Your task to perform on an android device: Go to Android settings Image 0: 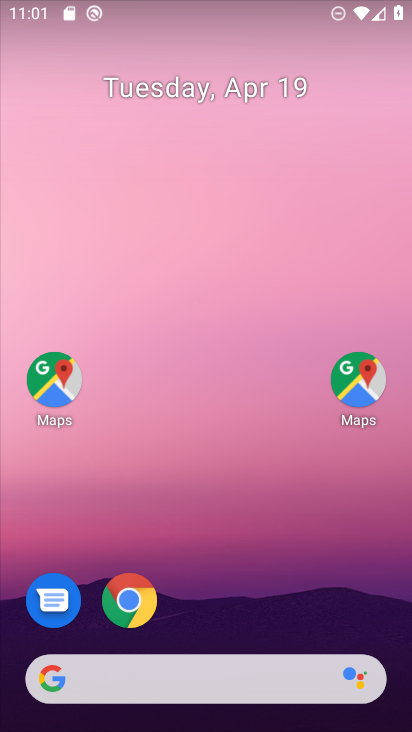
Step 0: drag from (294, 628) to (240, 0)
Your task to perform on an android device: Go to Android settings Image 1: 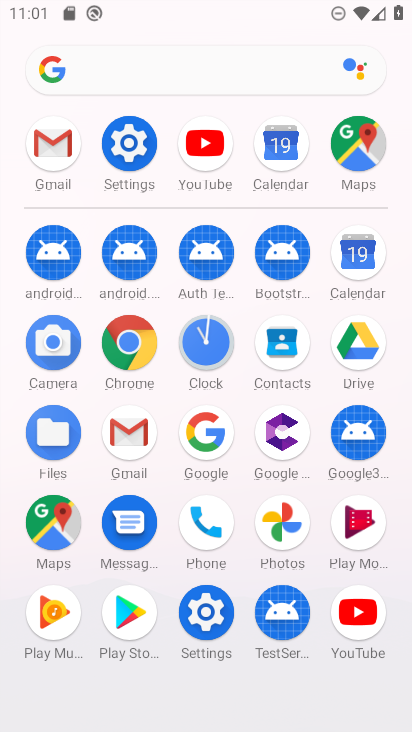
Step 1: click (211, 628)
Your task to perform on an android device: Go to Android settings Image 2: 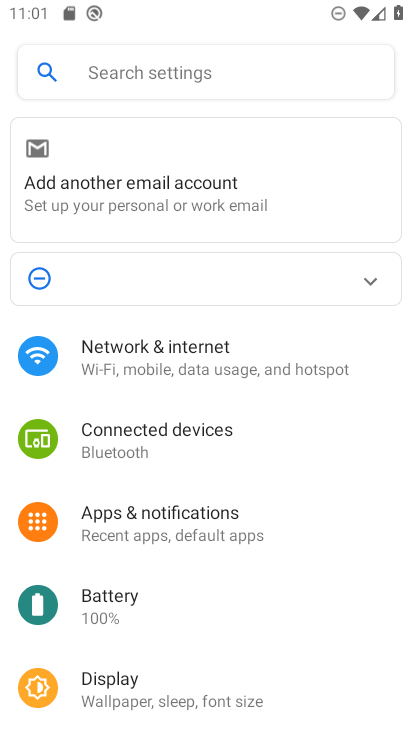
Step 2: drag from (276, 695) to (349, 88)
Your task to perform on an android device: Go to Android settings Image 3: 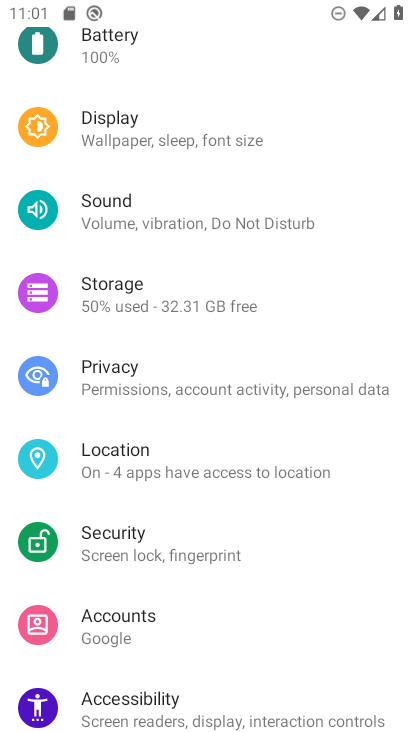
Step 3: drag from (196, 723) to (212, 220)
Your task to perform on an android device: Go to Android settings Image 4: 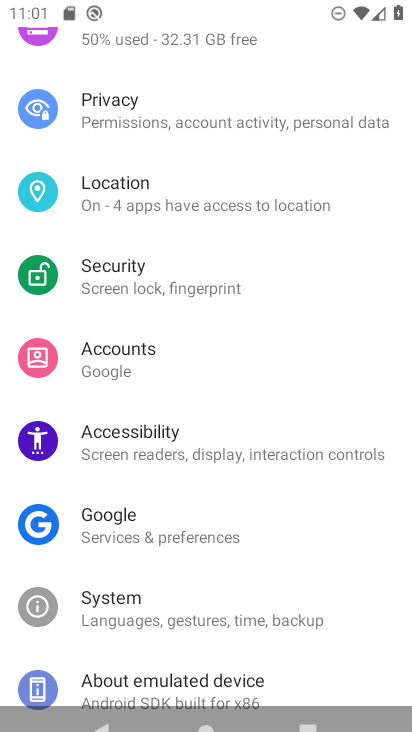
Step 4: drag from (254, 506) to (281, 228)
Your task to perform on an android device: Go to Android settings Image 5: 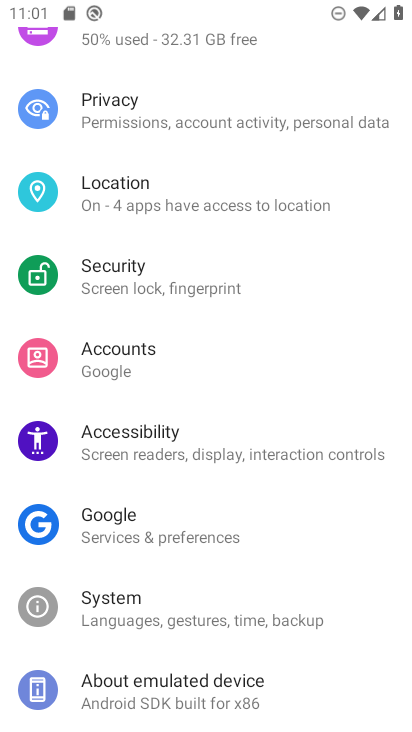
Step 5: click (223, 703)
Your task to perform on an android device: Go to Android settings Image 6: 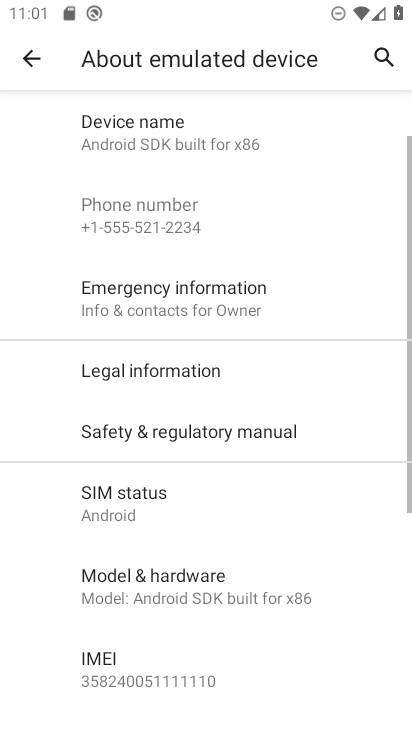
Step 6: drag from (251, 688) to (251, 195)
Your task to perform on an android device: Go to Android settings Image 7: 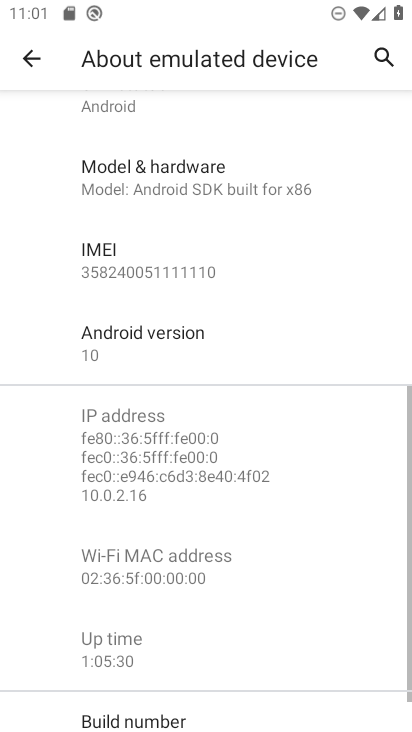
Step 7: drag from (228, 706) to (268, 242)
Your task to perform on an android device: Go to Android settings Image 8: 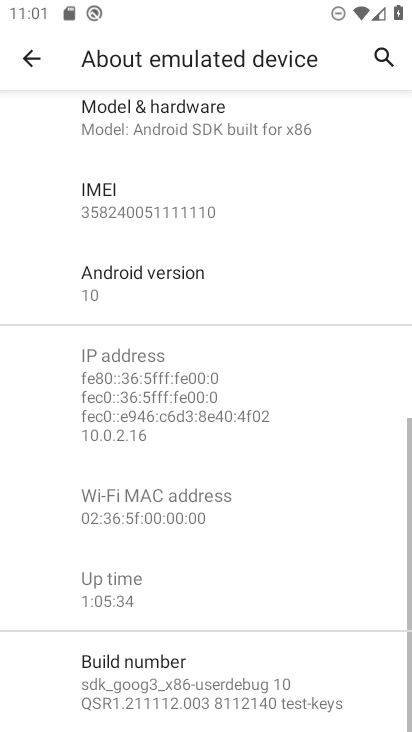
Step 8: click (209, 286)
Your task to perform on an android device: Go to Android settings Image 9: 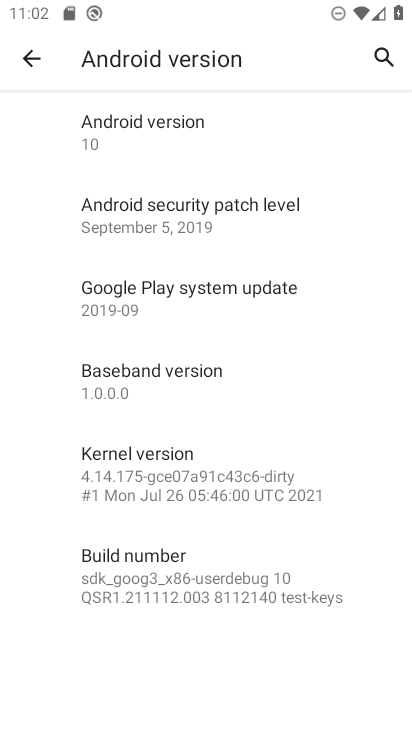
Step 9: task complete